Your task to perform on an android device: Go to location settings Image 0: 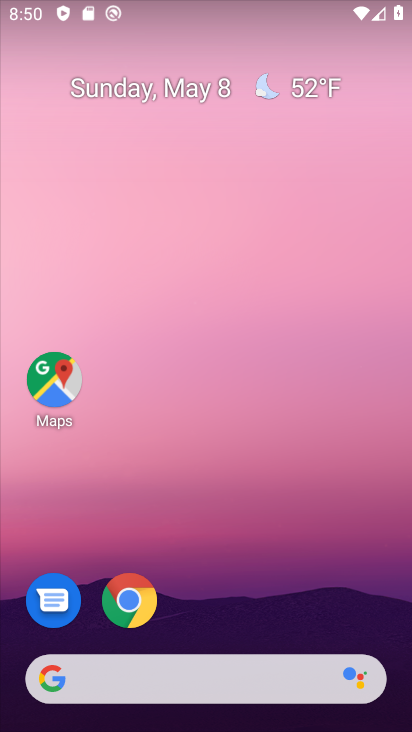
Step 0: drag from (230, 581) to (252, 99)
Your task to perform on an android device: Go to location settings Image 1: 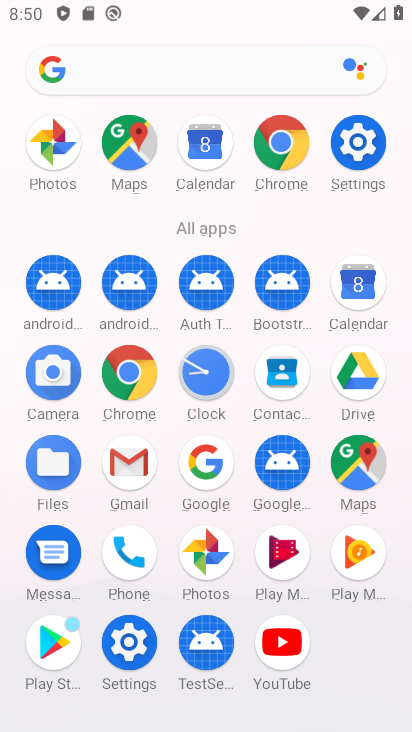
Step 1: click (367, 153)
Your task to perform on an android device: Go to location settings Image 2: 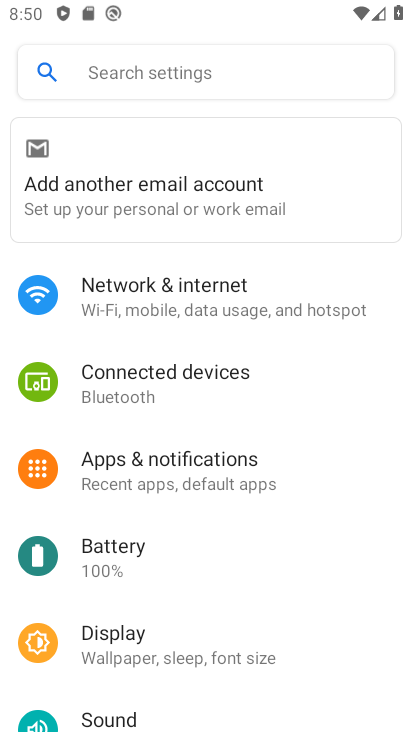
Step 2: drag from (169, 614) to (230, 274)
Your task to perform on an android device: Go to location settings Image 3: 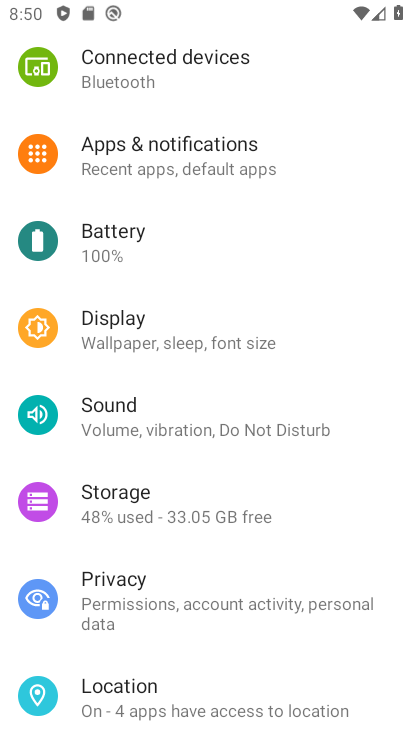
Step 3: click (163, 700)
Your task to perform on an android device: Go to location settings Image 4: 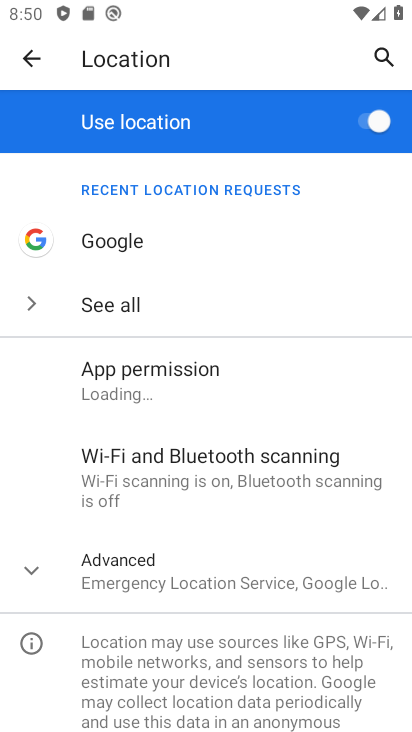
Step 4: task complete